Your task to perform on an android device: When is my next meeting? Image 0: 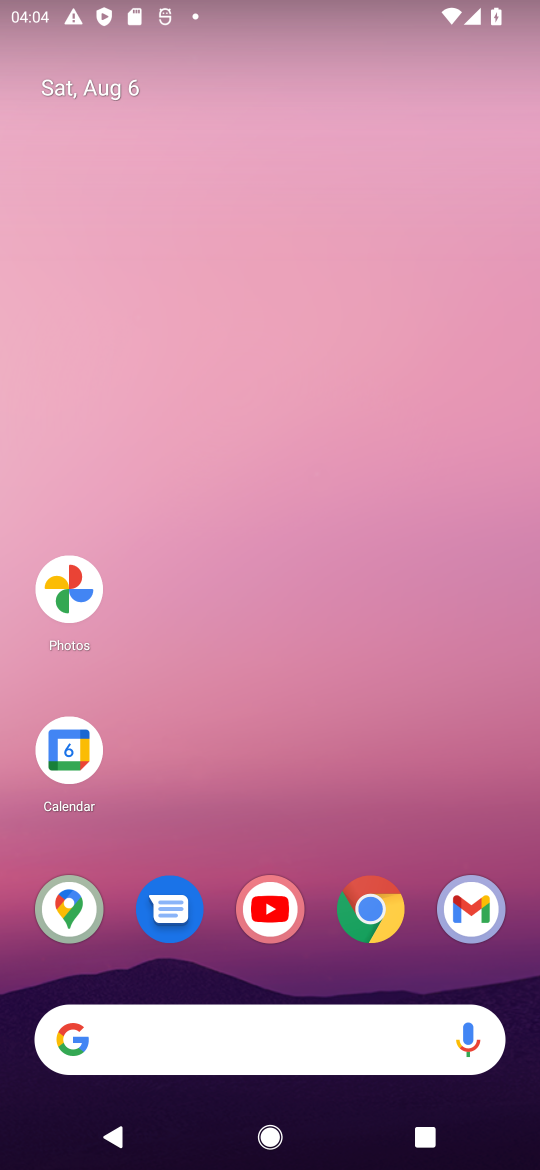
Step 0: press home button
Your task to perform on an android device: When is my next meeting? Image 1: 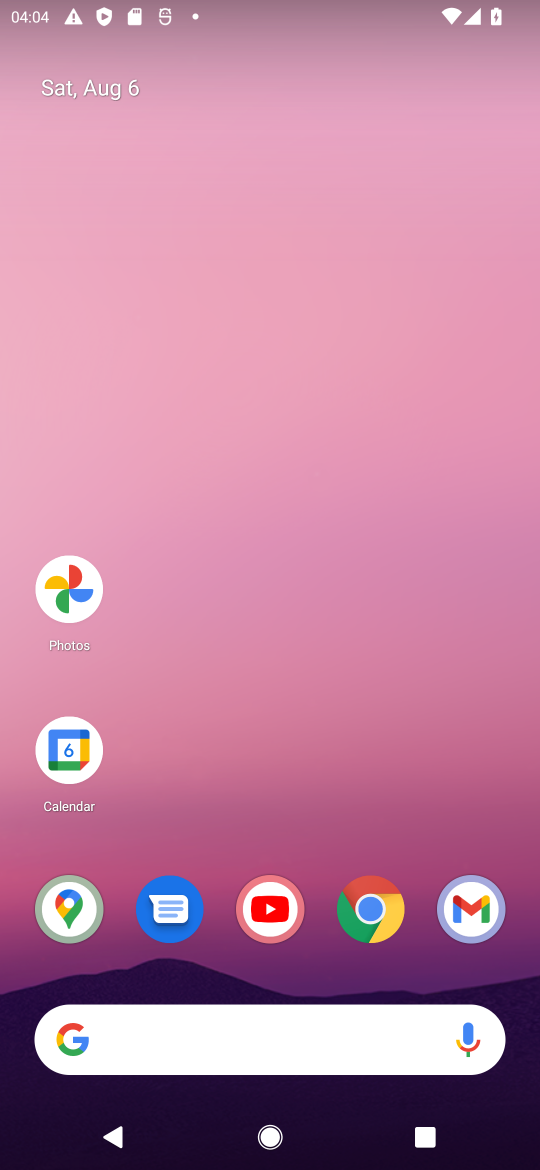
Step 1: click (76, 744)
Your task to perform on an android device: When is my next meeting? Image 2: 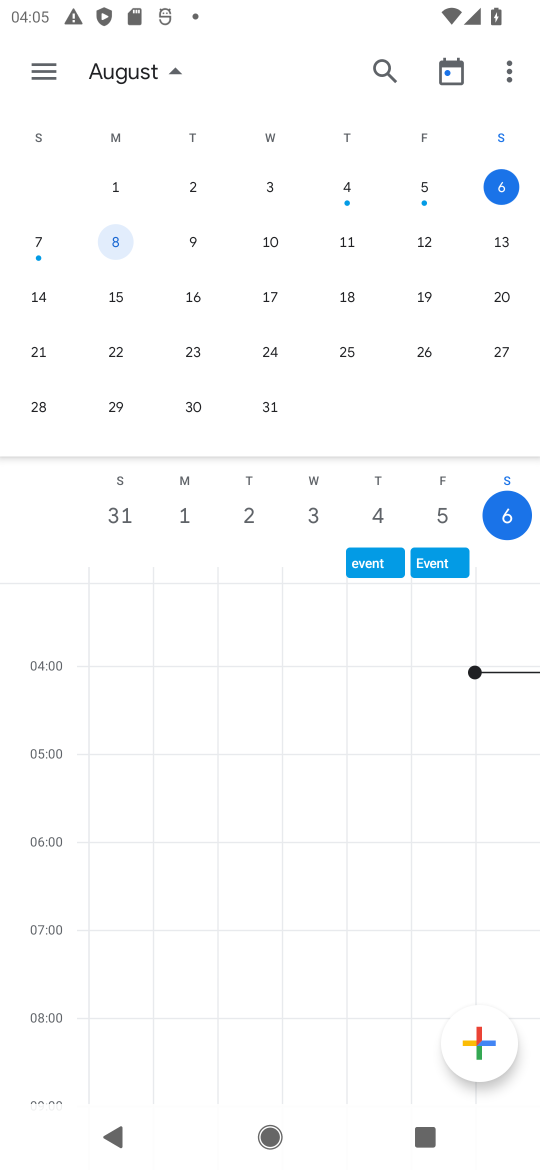
Step 2: click (490, 180)
Your task to perform on an android device: When is my next meeting? Image 3: 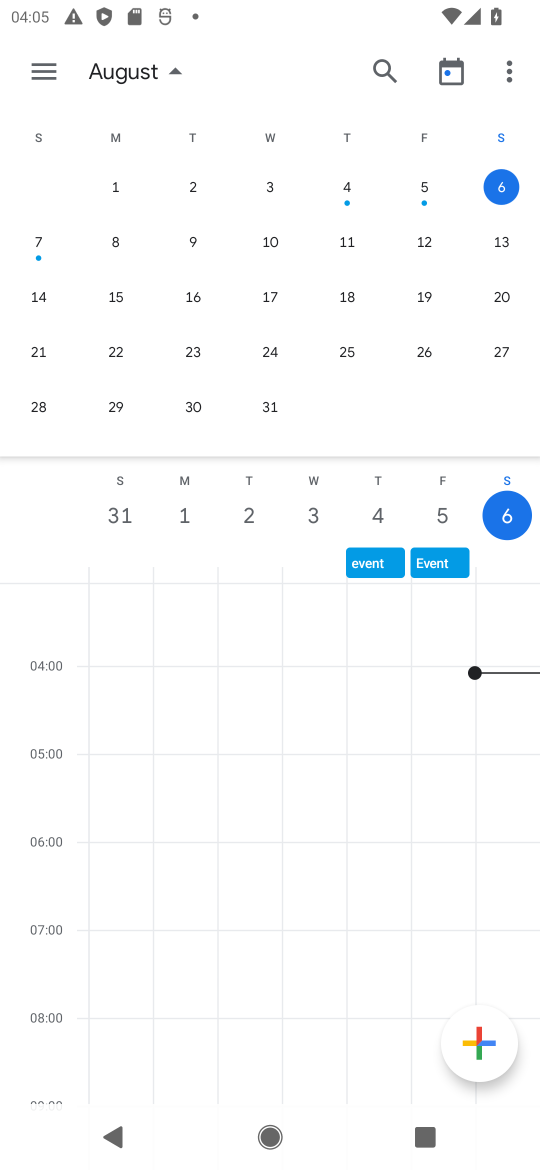
Step 3: task complete